Your task to perform on an android device: turn pop-ups on in chrome Image 0: 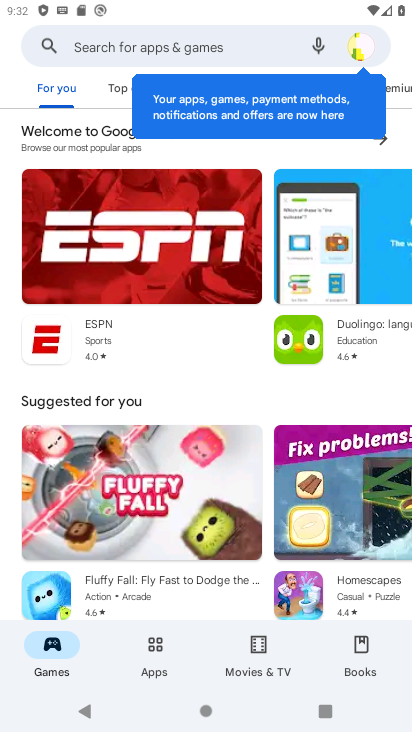
Step 0: press home button
Your task to perform on an android device: turn pop-ups on in chrome Image 1: 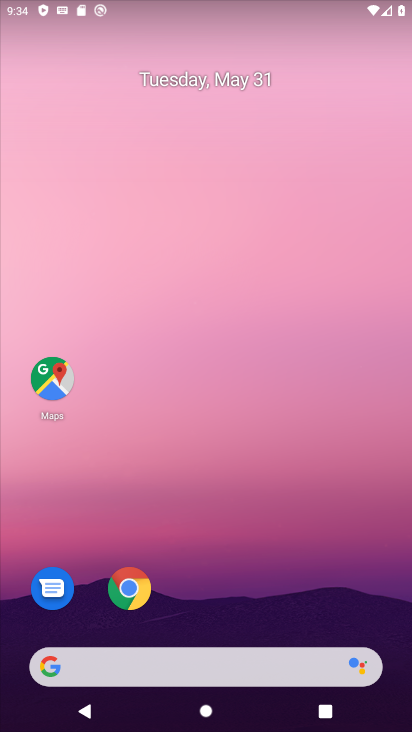
Step 1: click (129, 584)
Your task to perform on an android device: turn pop-ups on in chrome Image 2: 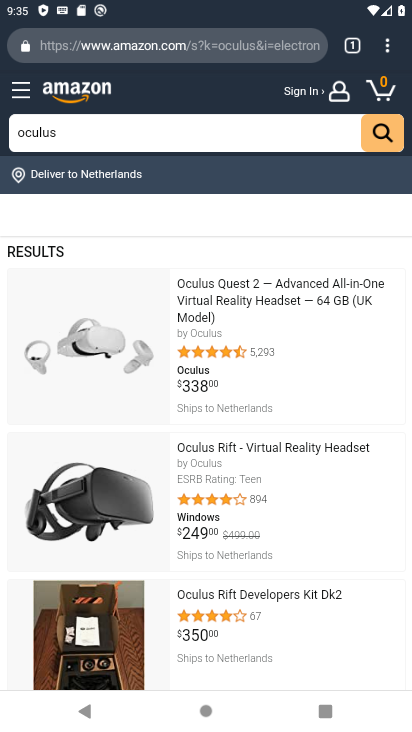
Step 2: click (397, 51)
Your task to perform on an android device: turn pop-ups on in chrome Image 3: 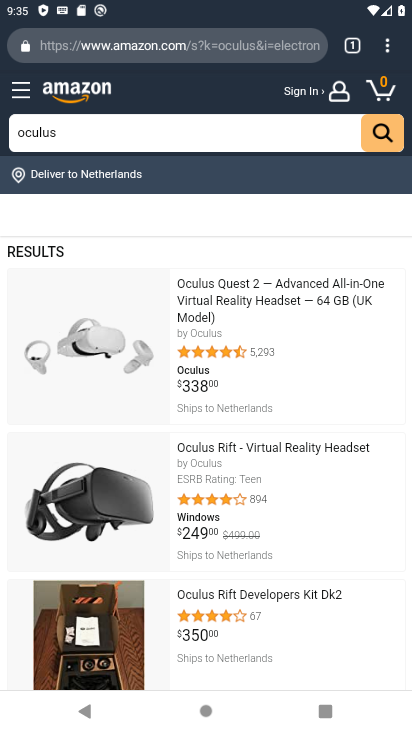
Step 3: click (387, 42)
Your task to perform on an android device: turn pop-ups on in chrome Image 4: 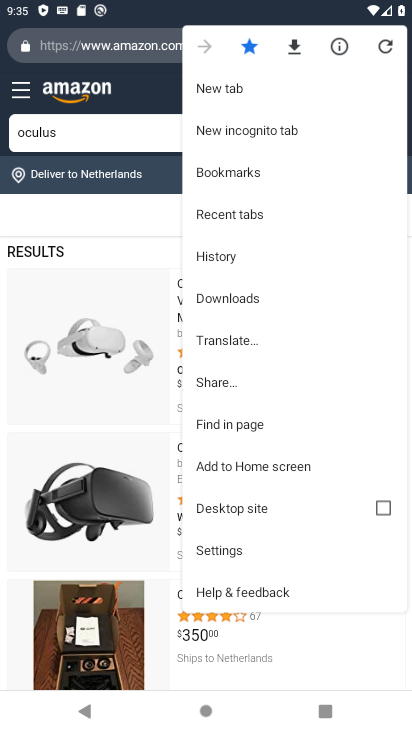
Step 4: click (290, 549)
Your task to perform on an android device: turn pop-ups on in chrome Image 5: 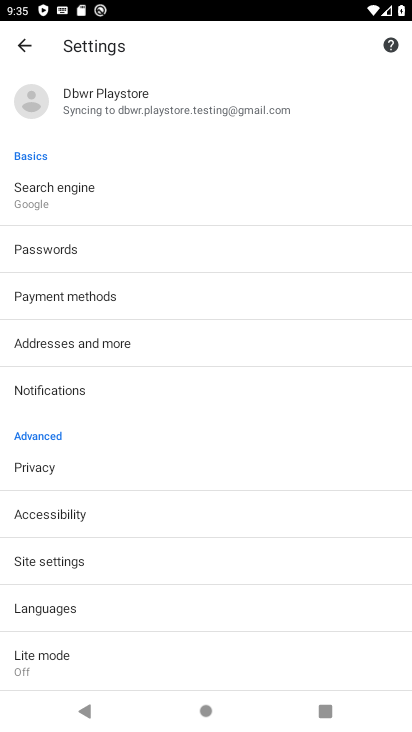
Step 5: click (108, 566)
Your task to perform on an android device: turn pop-ups on in chrome Image 6: 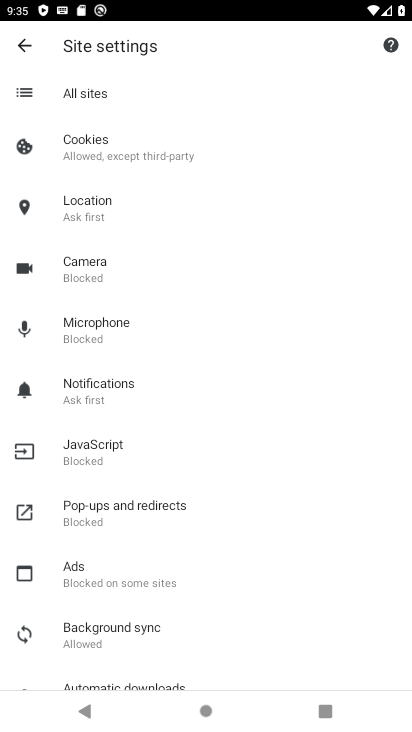
Step 6: click (136, 488)
Your task to perform on an android device: turn pop-ups on in chrome Image 7: 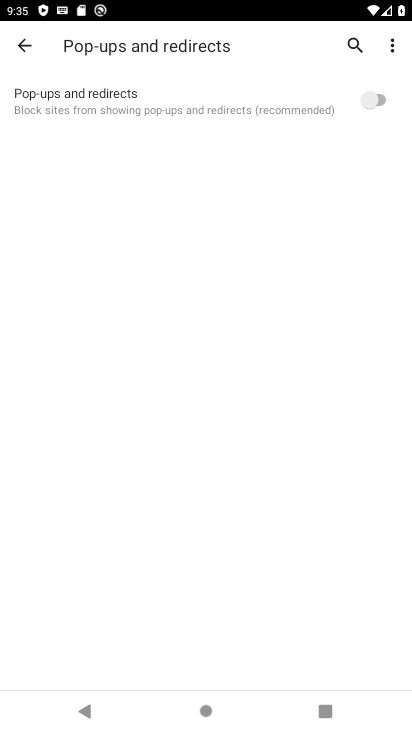
Step 7: click (360, 101)
Your task to perform on an android device: turn pop-ups on in chrome Image 8: 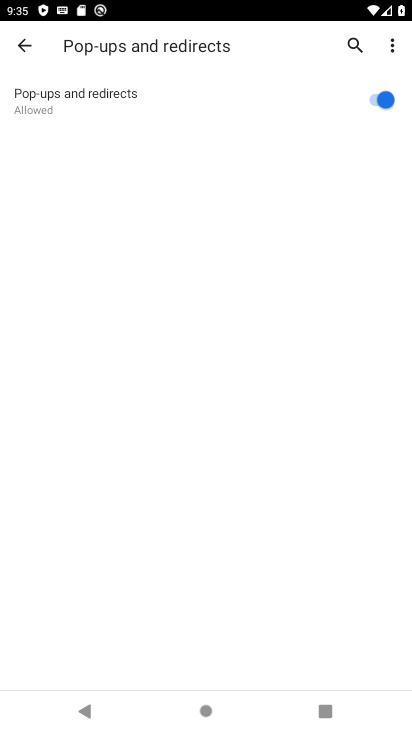
Step 8: task complete